Your task to perform on an android device: What is the recent news? Image 0: 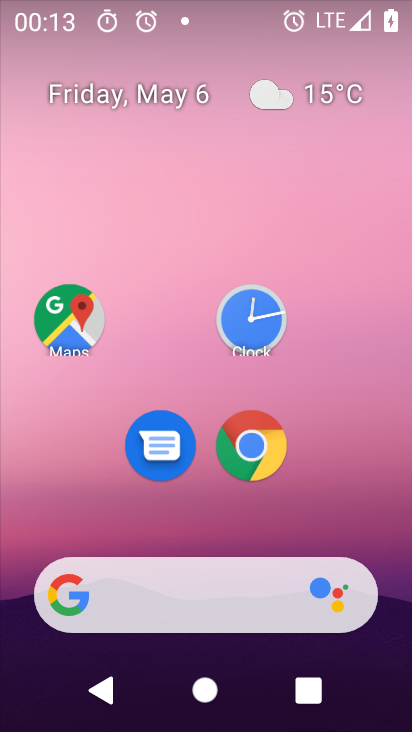
Step 0: drag from (196, 567) to (179, 169)
Your task to perform on an android device: What is the recent news? Image 1: 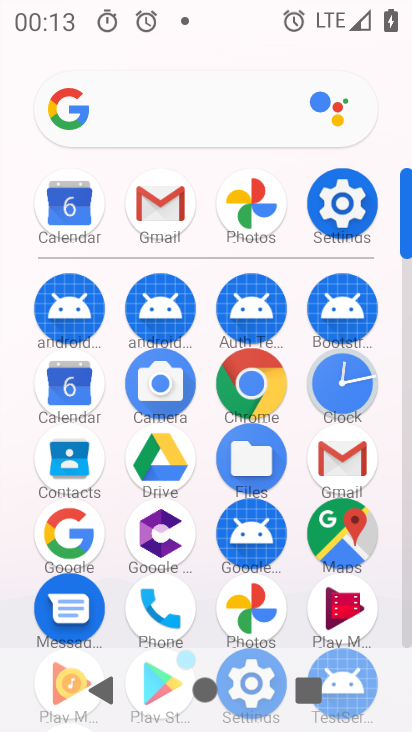
Step 1: click (70, 550)
Your task to perform on an android device: What is the recent news? Image 2: 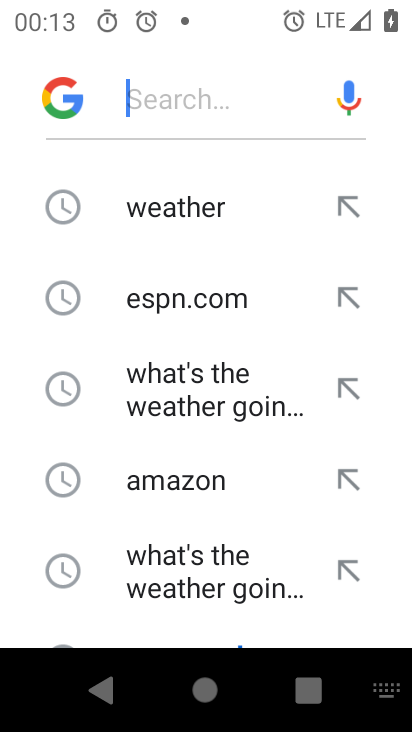
Step 2: task complete